Your task to perform on an android device: clear history in the chrome app Image 0: 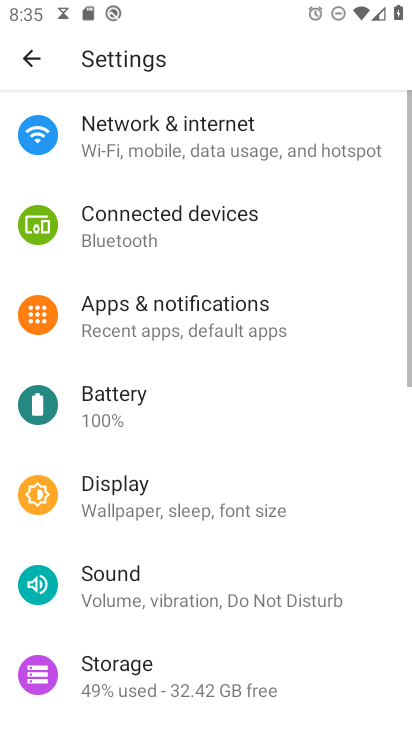
Step 0: press home button
Your task to perform on an android device: clear history in the chrome app Image 1: 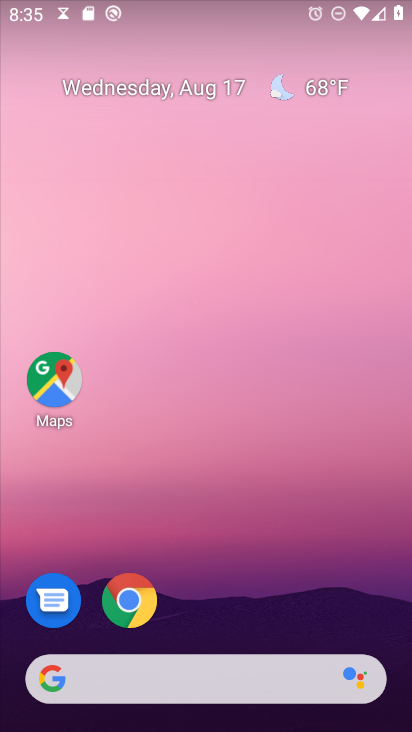
Step 1: click (114, 576)
Your task to perform on an android device: clear history in the chrome app Image 2: 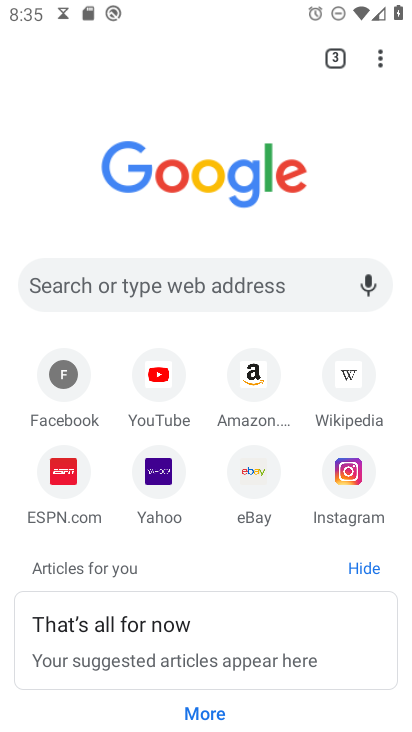
Step 2: drag from (379, 54) to (164, 497)
Your task to perform on an android device: clear history in the chrome app Image 3: 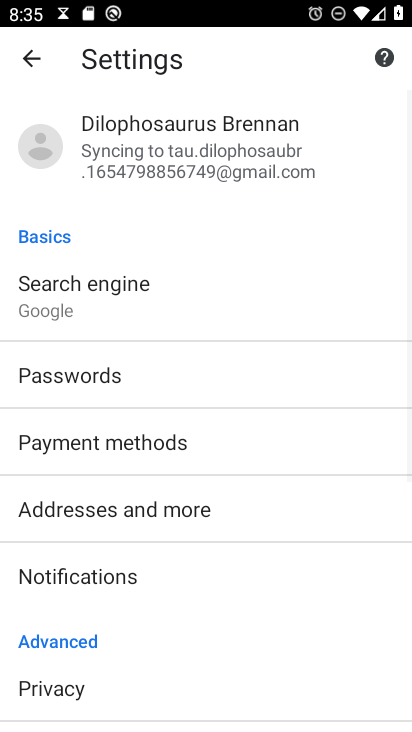
Step 3: click (95, 692)
Your task to perform on an android device: clear history in the chrome app Image 4: 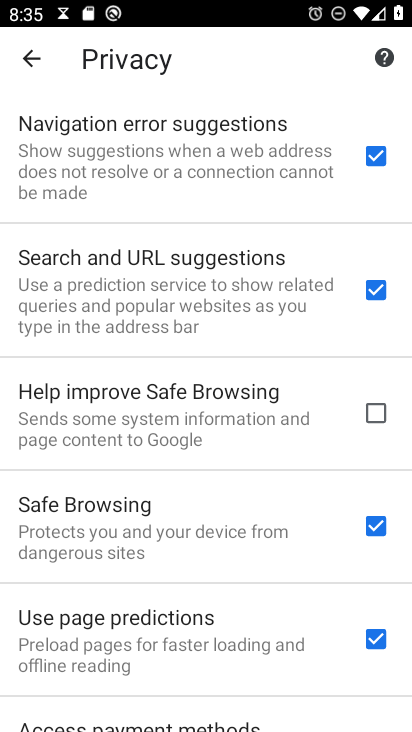
Step 4: drag from (204, 673) to (159, 210)
Your task to perform on an android device: clear history in the chrome app Image 5: 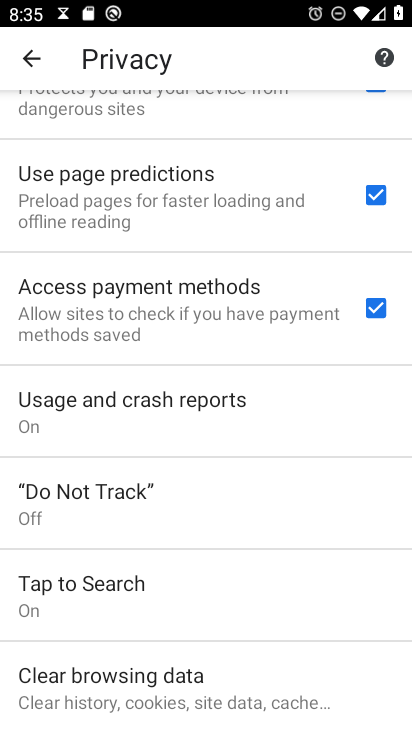
Step 5: click (102, 688)
Your task to perform on an android device: clear history in the chrome app Image 6: 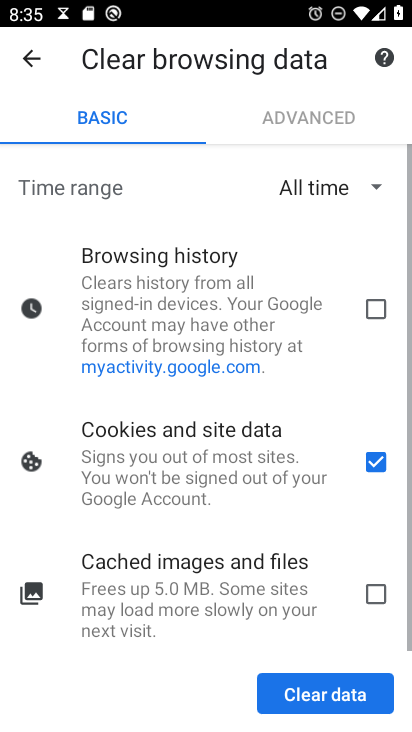
Step 6: click (377, 308)
Your task to perform on an android device: clear history in the chrome app Image 7: 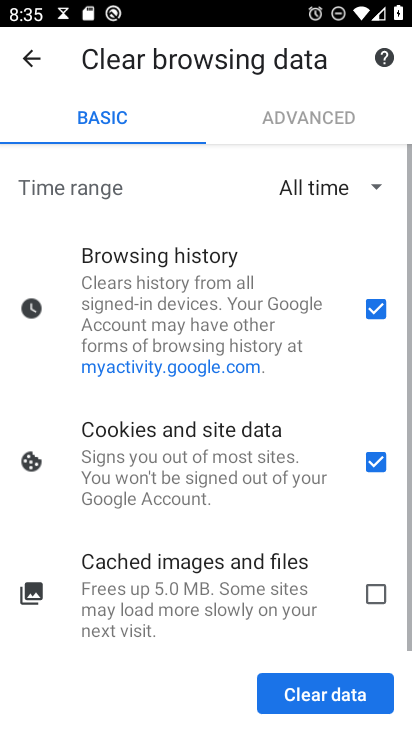
Step 7: click (378, 456)
Your task to perform on an android device: clear history in the chrome app Image 8: 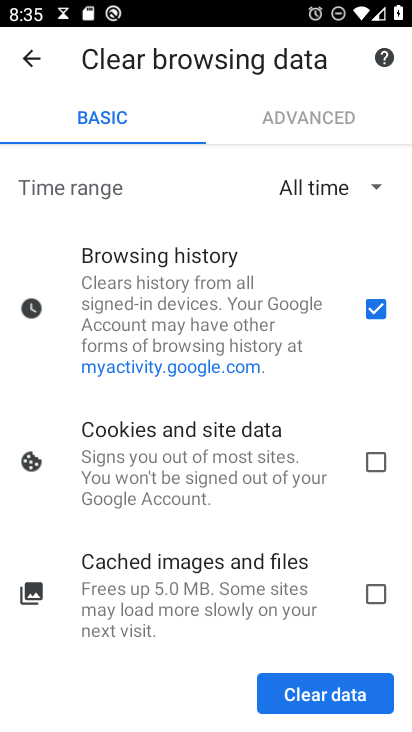
Step 8: click (346, 694)
Your task to perform on an android device: clear history in the chrome app Image 9: 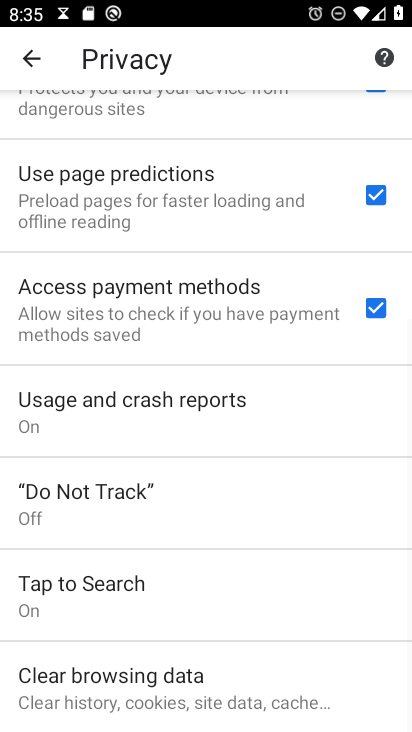
Step 9: task complete